Your task to perform on an android device: change keyboard looks Image 0: 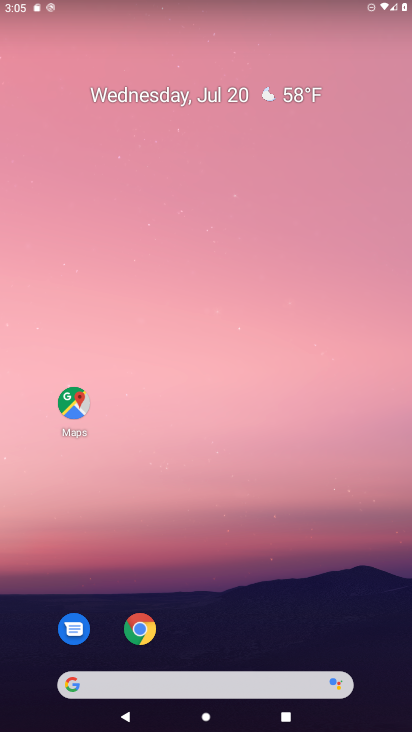
Step 0: drag from (242, 659) to (260, 0)
Your task to perform on an android device: change keyboard looks Image 1: 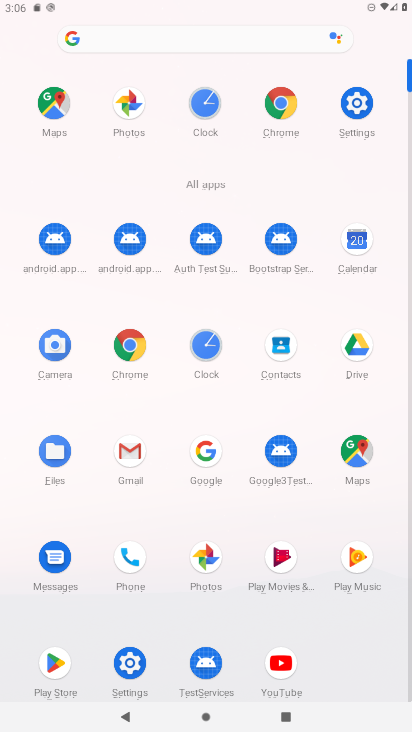
Step 1: click (119, 653)
Your task to perform on an android device: change keyboard looks Image 2: 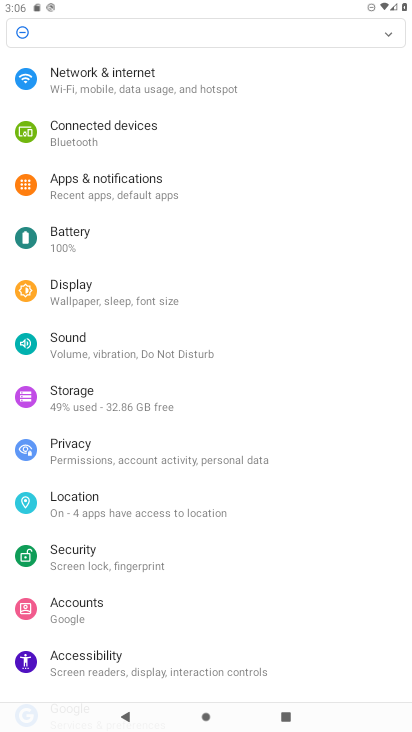
Step 2: drag from (133, 627) to (172, 155)
Your task to perform on an android device: change keyboard looks Image 3: 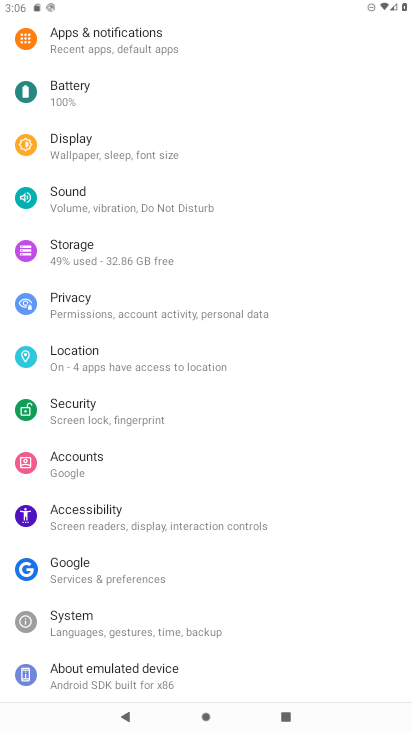
Step 3: click (97, 628)
Your task to perform on an android device: change keyboard looks Image 4: 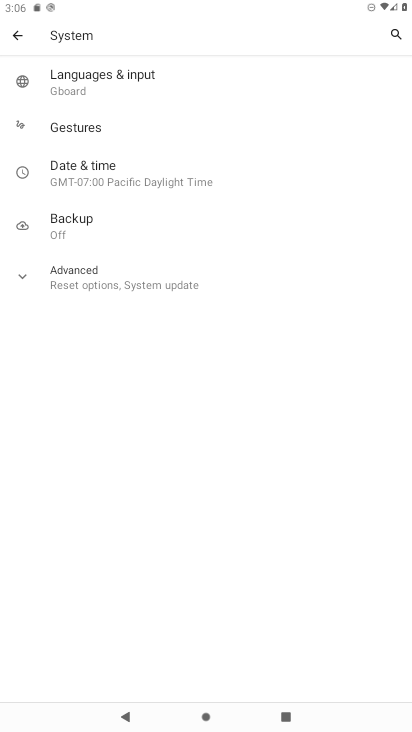
Step 4: click (77, 75)
Your task to perform on an android device: change keyboard looks Image 5: 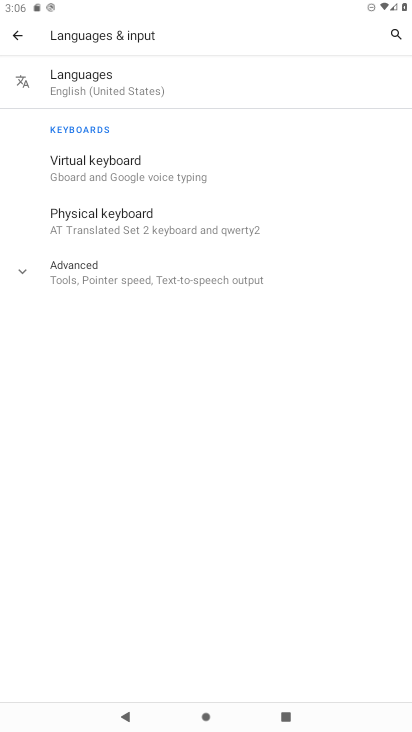
Step 5: click (78, 175)
Your task to perform on an android device: change keyboard looks Image 6: 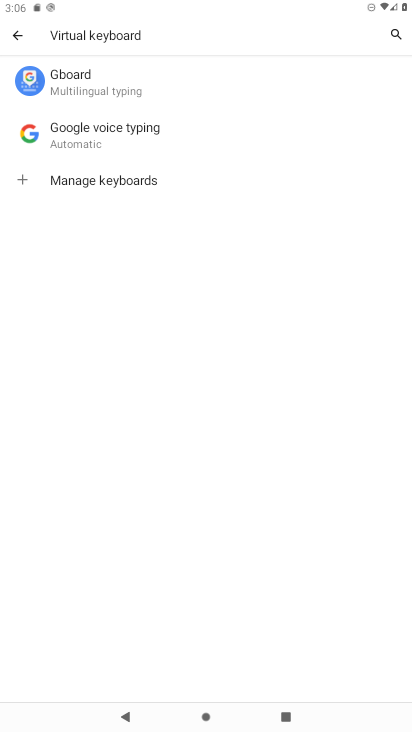
Step 6: click (64, 90)
Your task to perform on an android device: change keyboard looks Image 7: 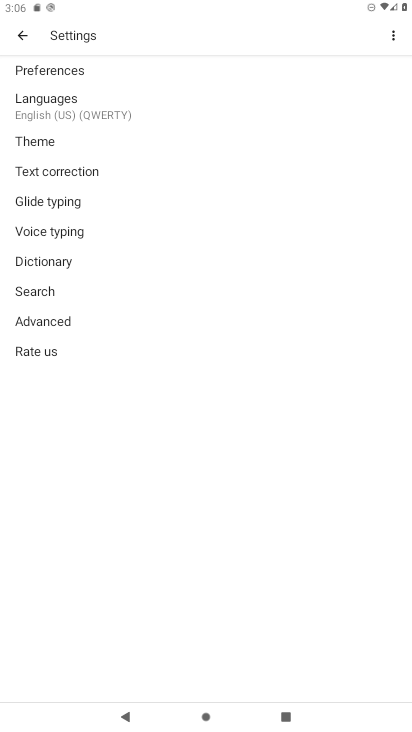
Step 7: click (44, 138)
Your task to perform on an android device: change keyboard looks Image 8: 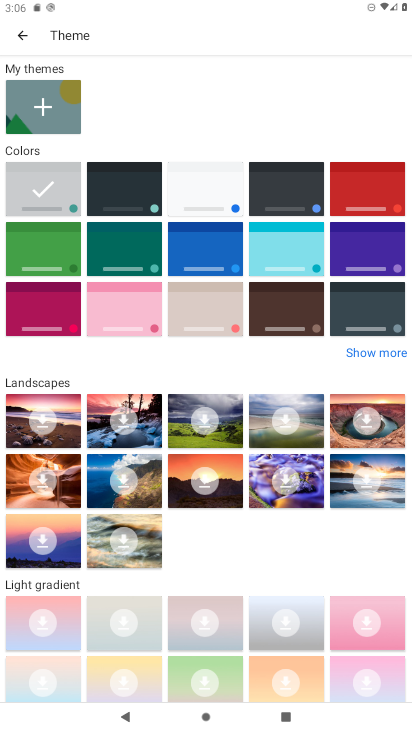
Step 8: click (196, 200)
Your task to perform on an android device: change keyboard looks Image 9: 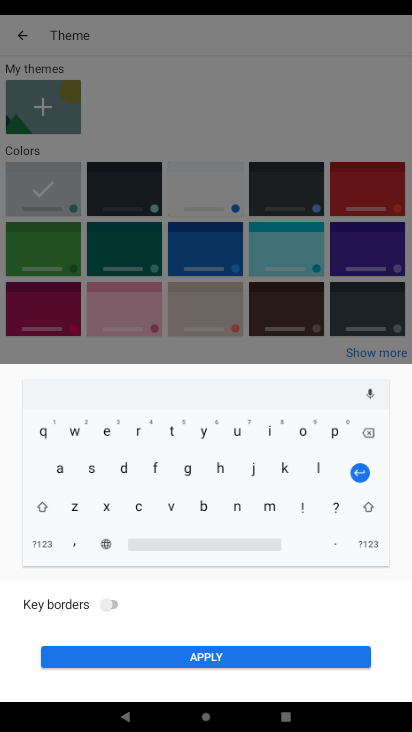
Step 9: click (93, 599)
Your task to perform on an android device: change keyboard looks Image 10: 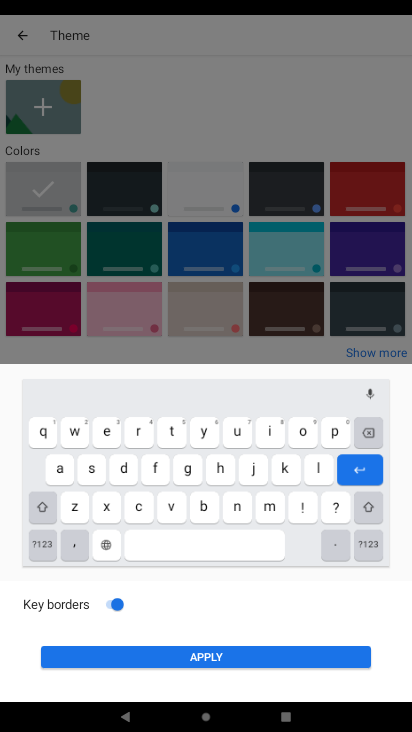
Step 10: click (171, 653)
Your task to perform on an android device: change keyboard looks Image 11: 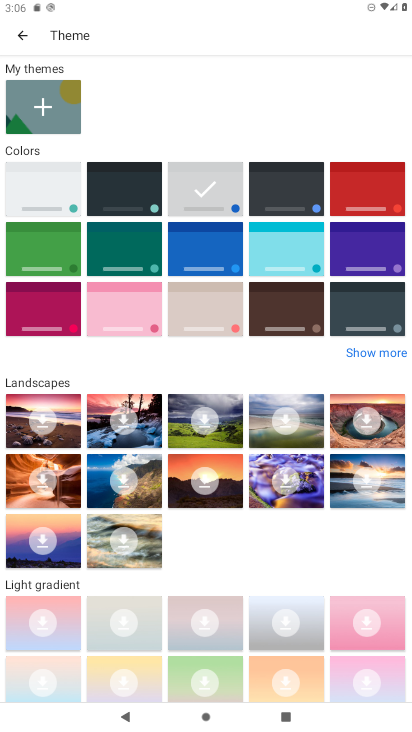
Step 11: task complete